Your task to perform on an android device: Open Yahoo.com Image 0: 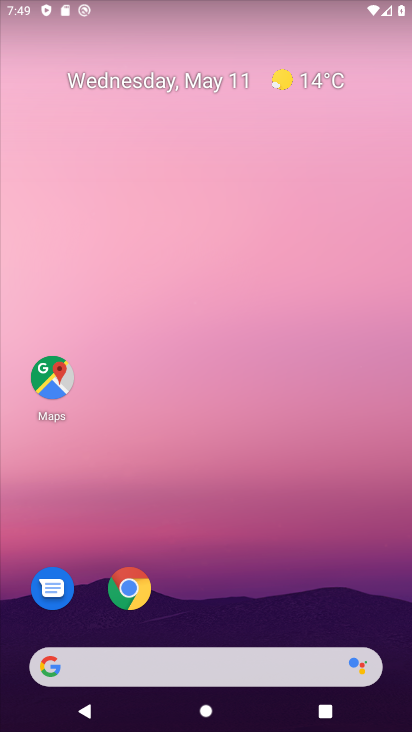
Step 0: click (217, 679)
Your task to perform on an android device: Open Yahoo.com Image 1: 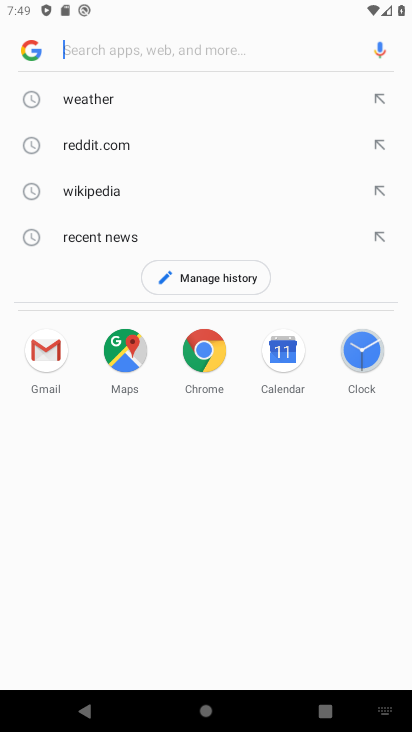
Step 1: type "yahoo.com"
Your task to perform on an android device: Open Yahoo.com Image 2: 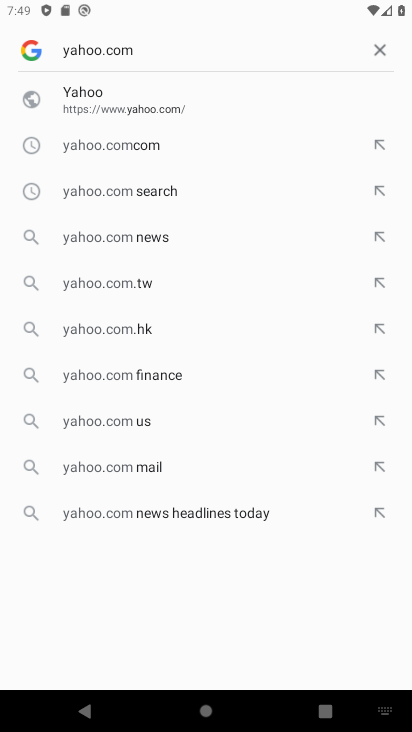
Step 2: click (156, 107)
Your task to perform on an android device: Open Yahoo.com Image 3: 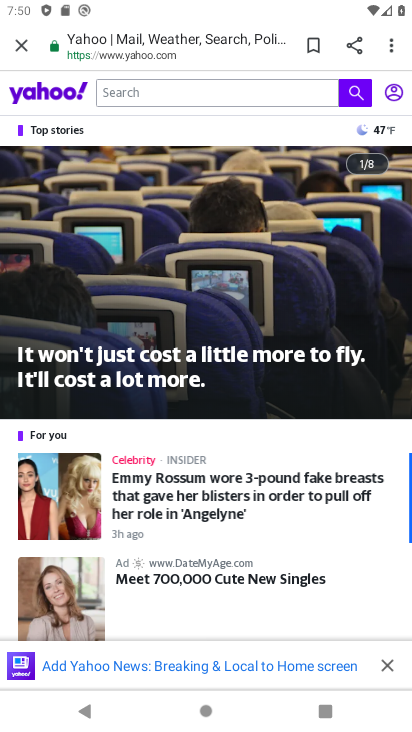
Step 3: task complete